Your task to perform on an android device: Show me recent news Image 0: 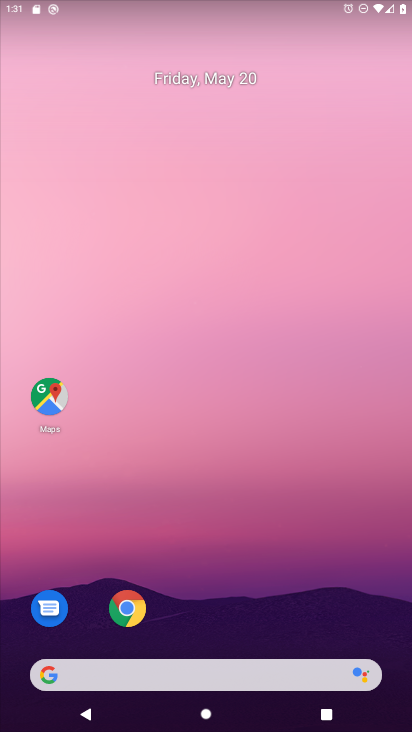
Step 0: press home button
Your task to perform on an android device: Show me recent news Image 1: 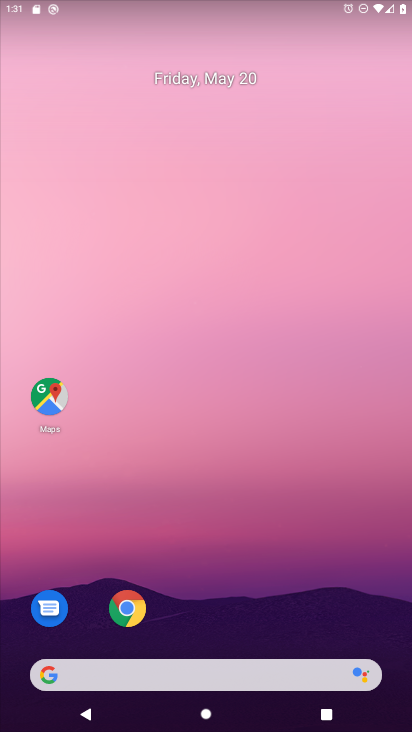
Step 1: click (116, 605)
Your task to perform on an android device: Show me recent news Image 2: 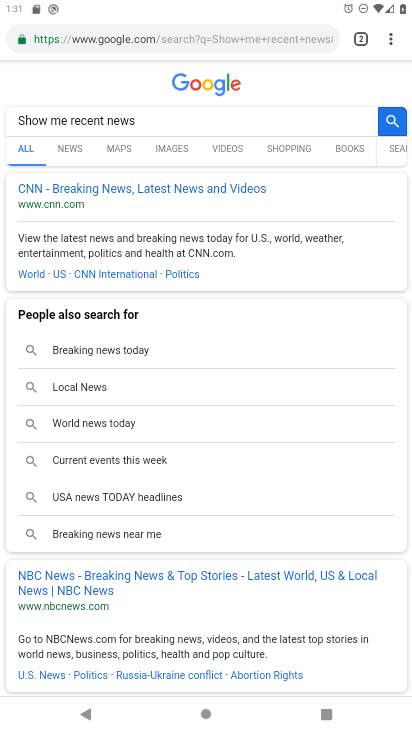
Step 2: task complete